Your task to perform on an android device: turn on the 24-hour format for clock Image 0: 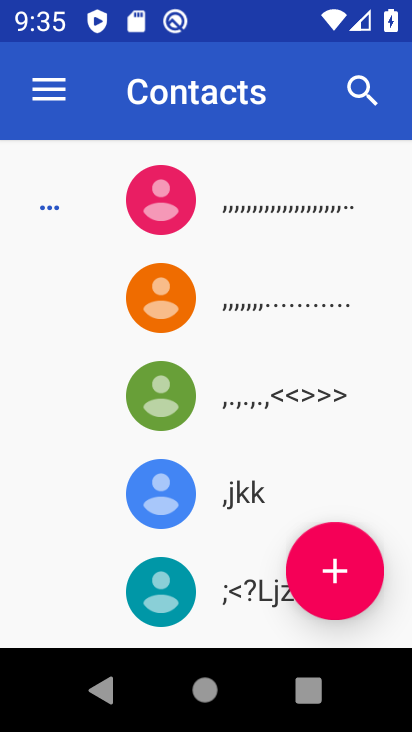
Step 0: press home button
Your task to perform on an android device: turn on the 24-hour format for clock Image 1: 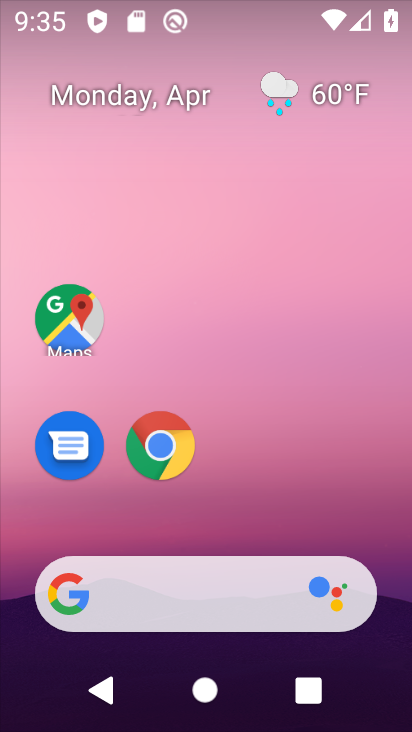
Step 1: drag from (291, 506) to (364, 78)
Your task to perform on an android device: turn on the 24-hour format for clock Image 2: 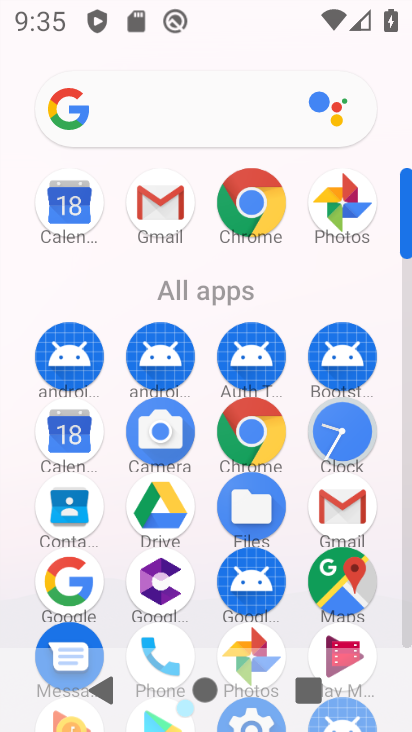
Step 2: click (347, 425)
Your task to perform on an android device: turn on the 24-hour format for clock Image 3: 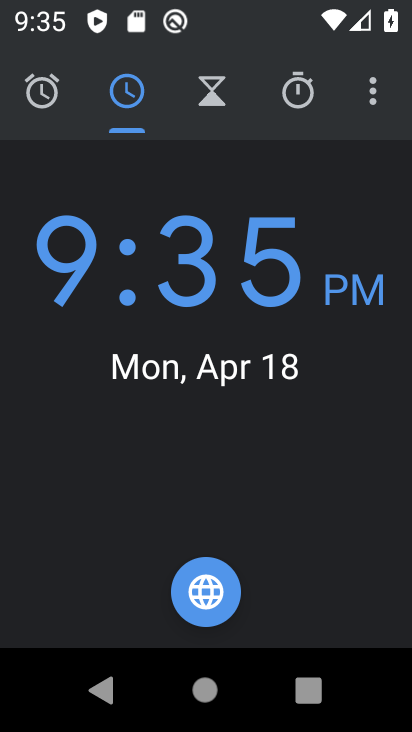
Step 3: click (371, 96)
Your task to perform on an android device: turn on the 24-hour format for clock Image 4: 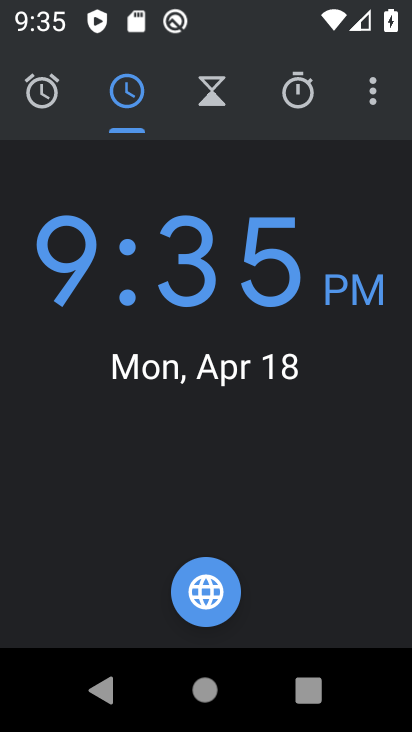
Step 4: click (371, 96)
Your task to perform on an android device: turn on the 24-hour format for clock Image 5: 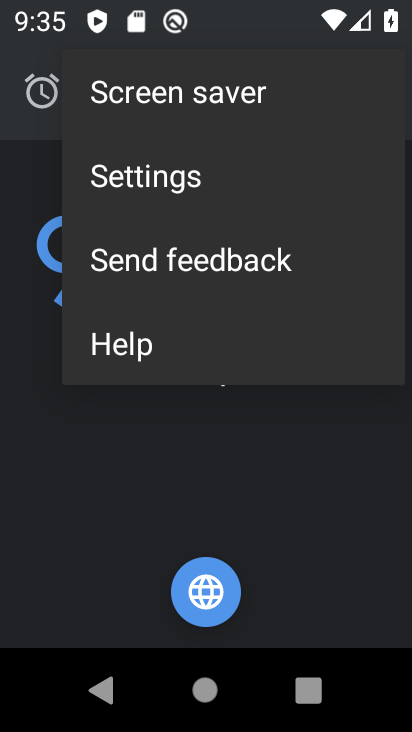
Step 5: click (277, 187)
Your task to perform on an android device: turn on the 24-hour format for clock Image 6: 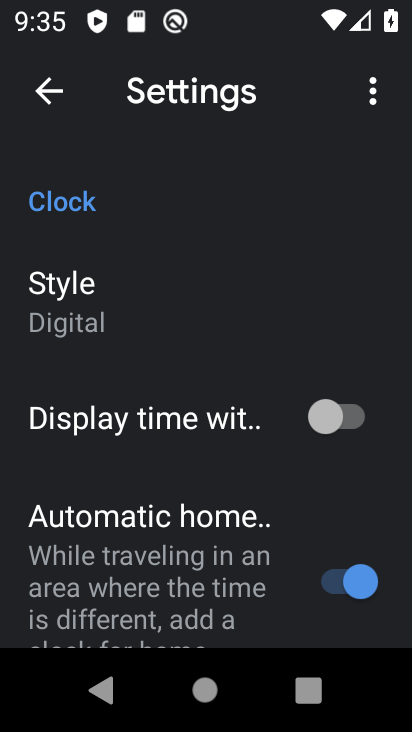
Step 6: drag from (235, 538) to (273, 190)
Your task to perform on an android device: turn on the 24-hour format for clock Image 7: 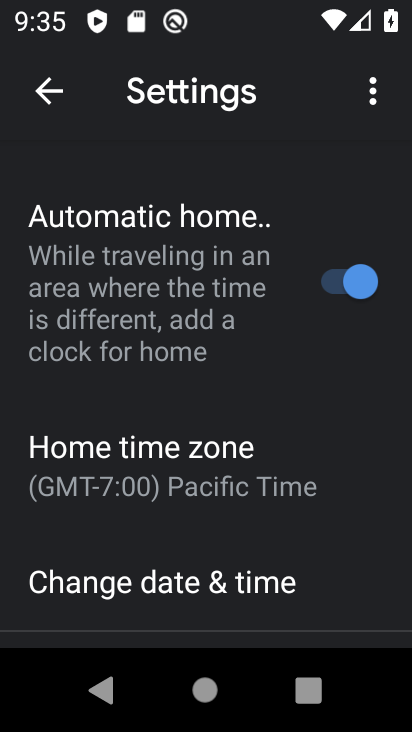
Step 7: drag from (212, 544) to (227, 186)
Your task to perform on an android device: turn on the 24-hour format for clock Image 8: 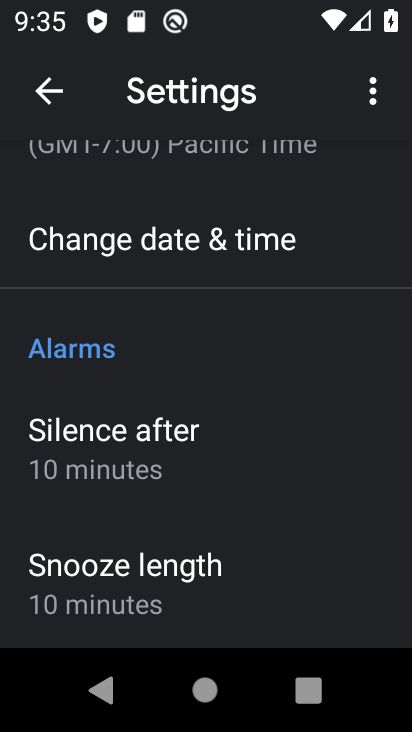
Step 8: click (267, 233)
Your task to perform on an android device: turn on the 24-hour format for clock Image 9: 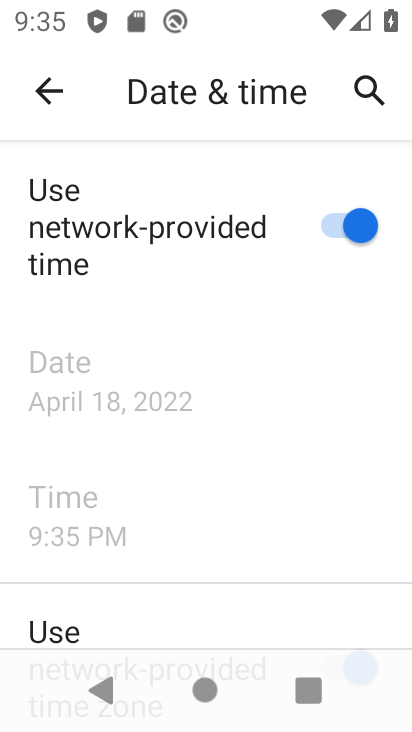
Step 9: drag from (233, 547) to (251, 124)
Your task to perform on an android device: turn on the 24-hour format for clock Image 10: 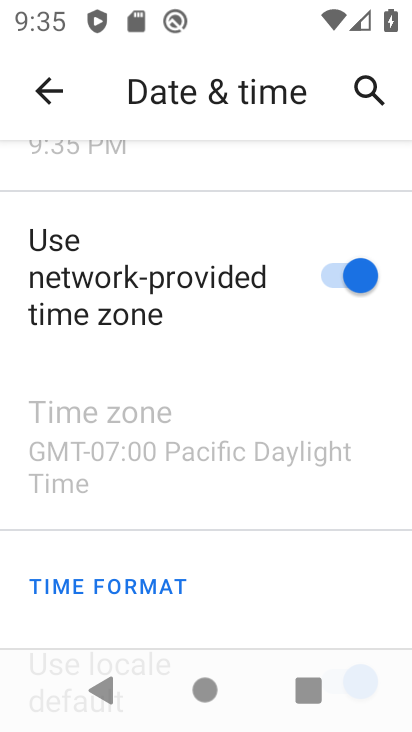
Step 10: drag from (220, 399) to (236, 176)
Your task to perform on an android device: turn on the 24-hour format for clock Image 11: 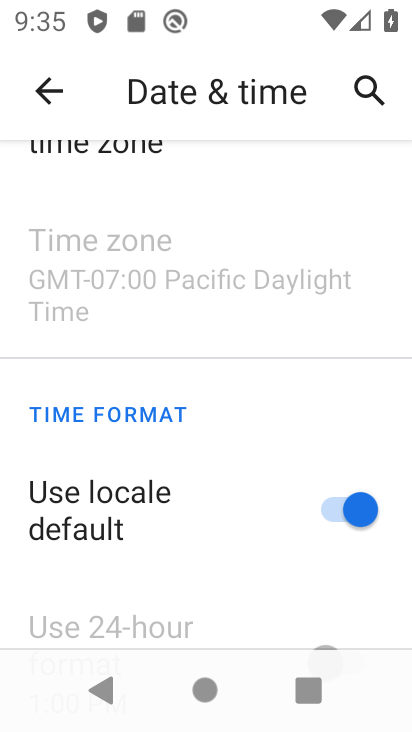
Step 11: drag from (231, 427) to (211, 233)
Your task to perform on an android device: turn on the 24-hour format for clock Image 12: 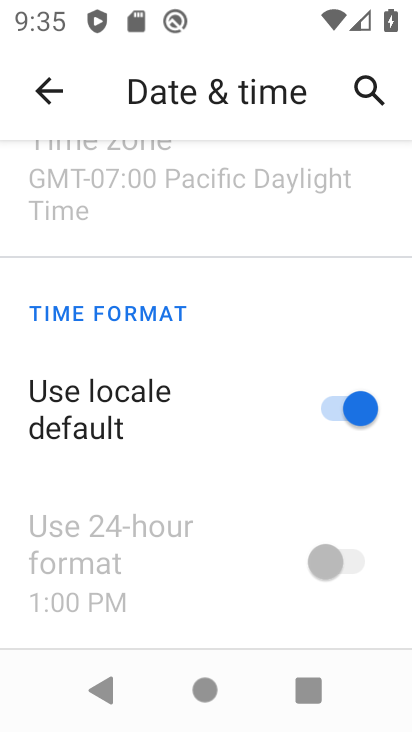
Step 12: click (335, 399)
Your task to perform on an android device: turn on the 24-hour format for clock Image 13: 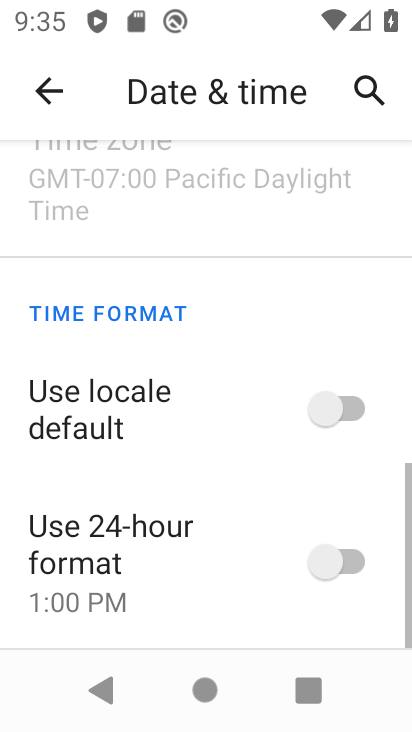
Step 13: click (350, 546)
Your task to perform on an android device: turn on the 24-hour format for clock Image 14: 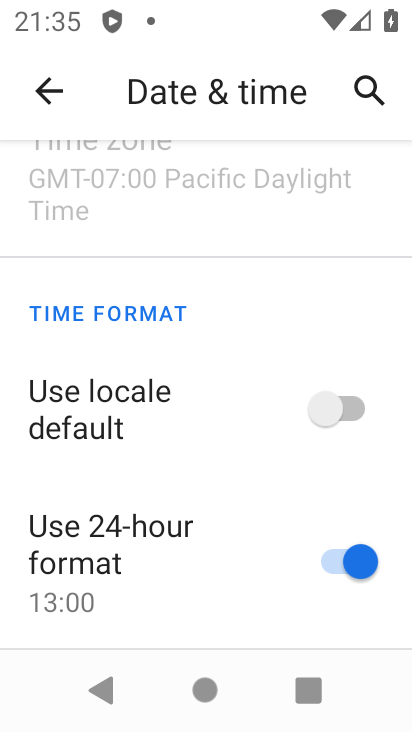
Step 14: task complete